Your task to perform on an android device: Search for vegetarian restaurants on Maps Image 0: 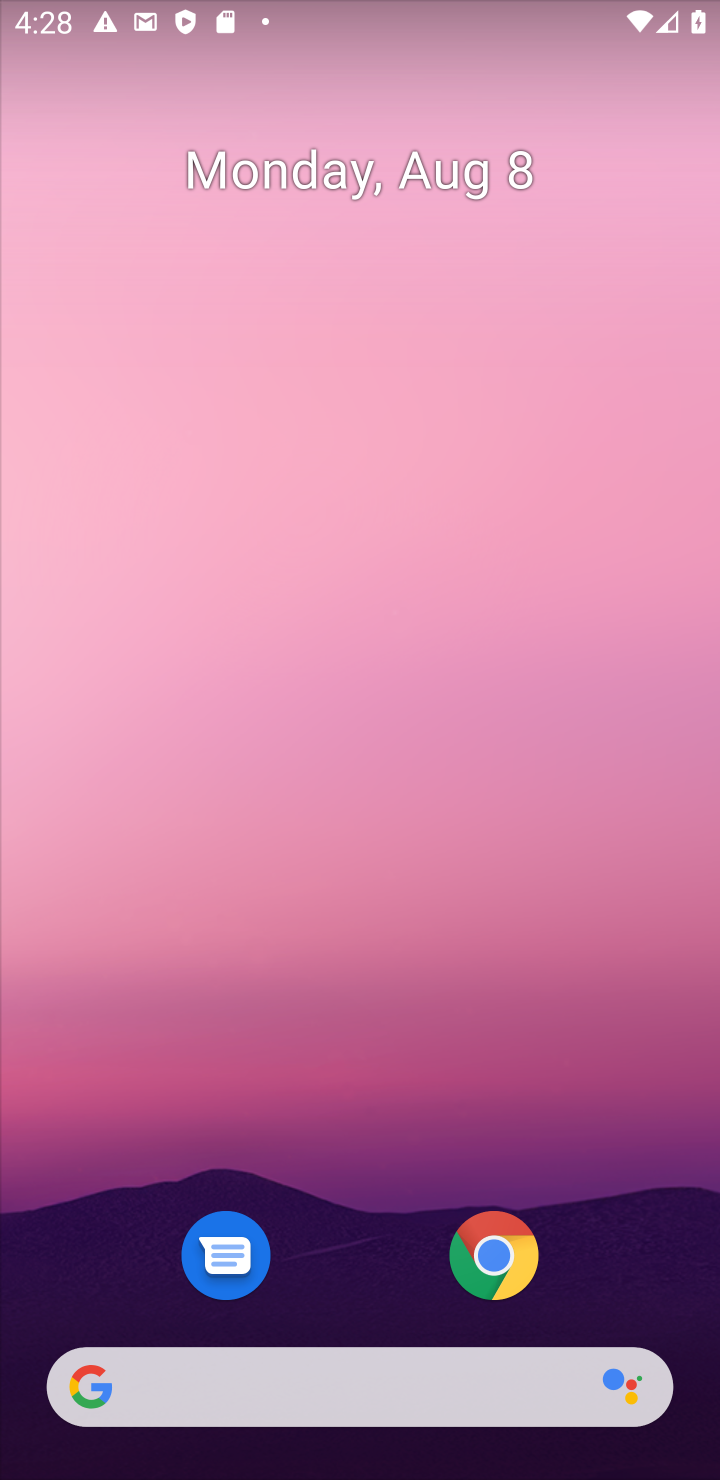
Step 0: drag from (406, 1372) to (590, 234)
Your task to perform on an android device: Search for vegetarian restaurants on Maps Image 1: 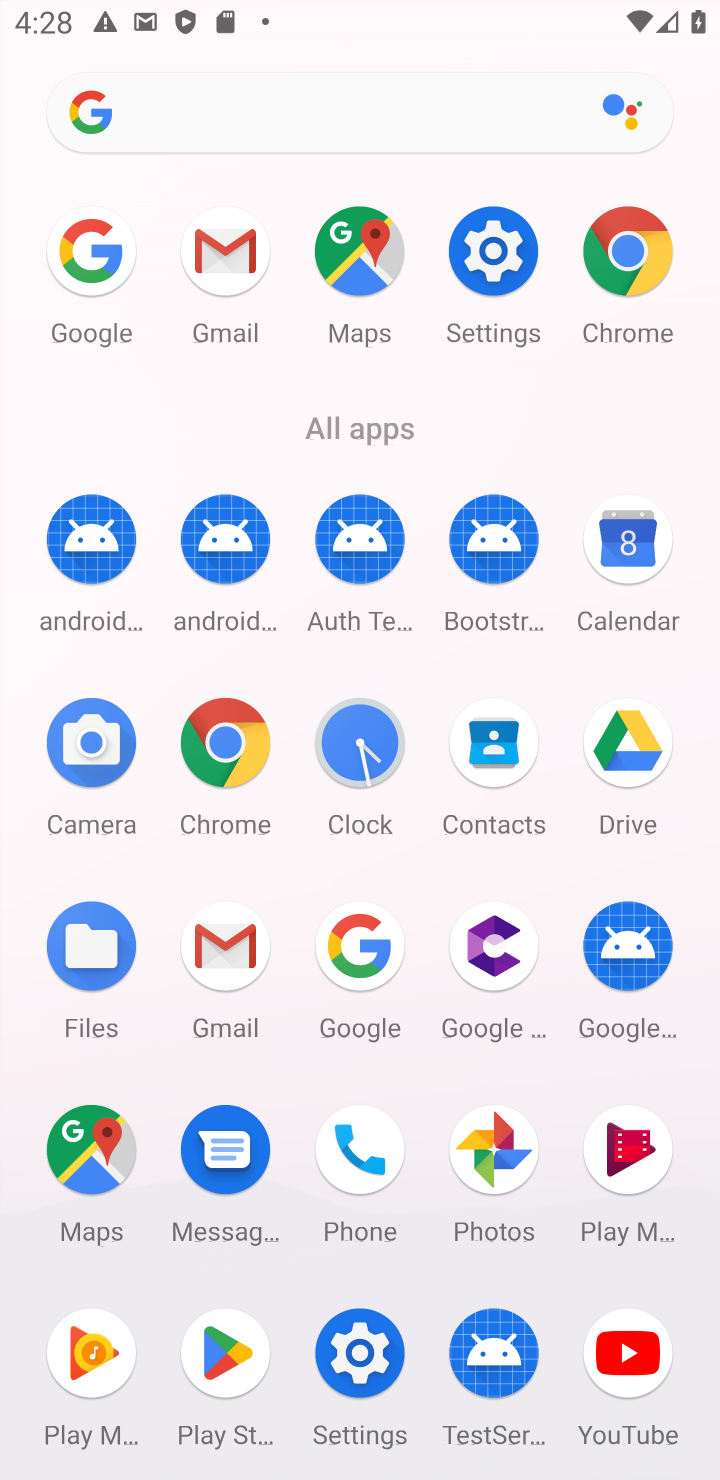
Step 1: click (97, 1151)
Your task to perform on an android device: Search for vegetarian restaurants on Maps Image 2: 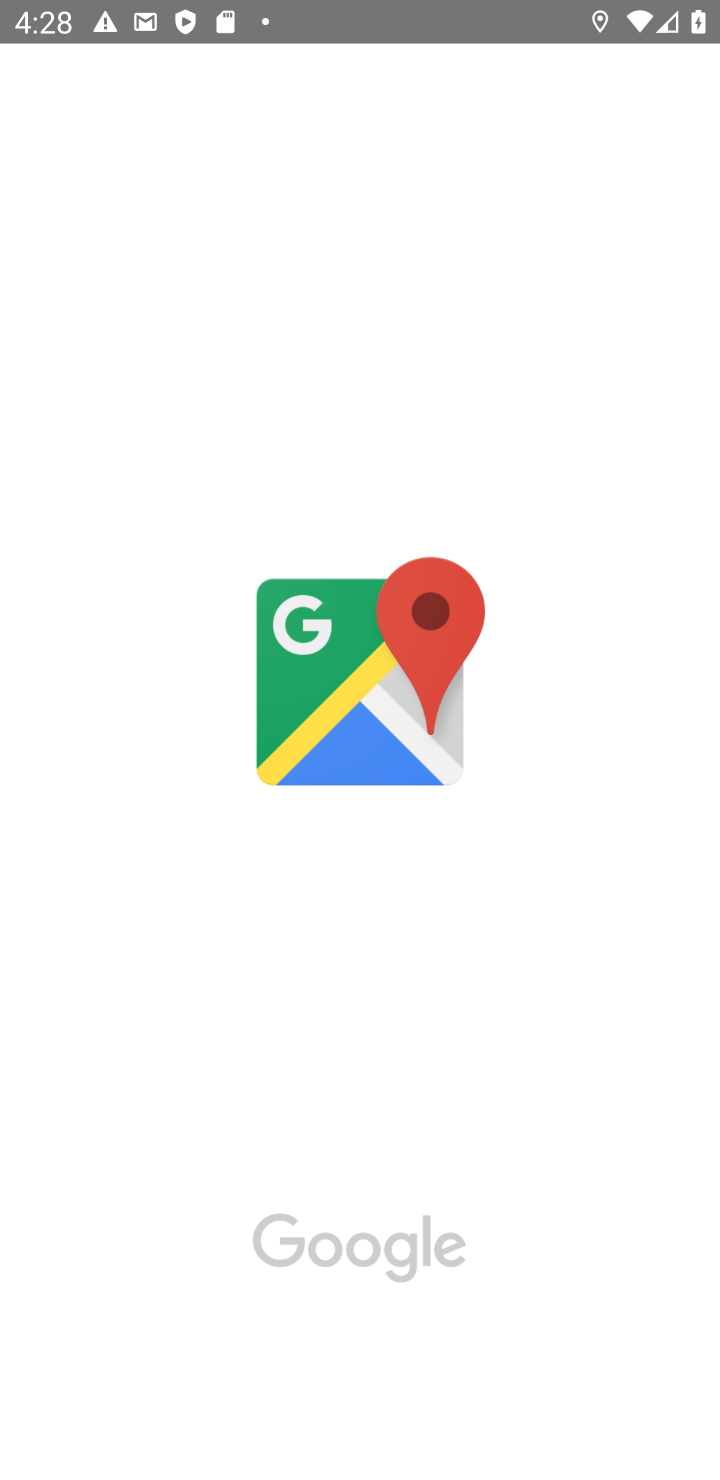
Step 2: task complete